Your task to perform on an android device: toggle pop-ups in chrome Image 0: 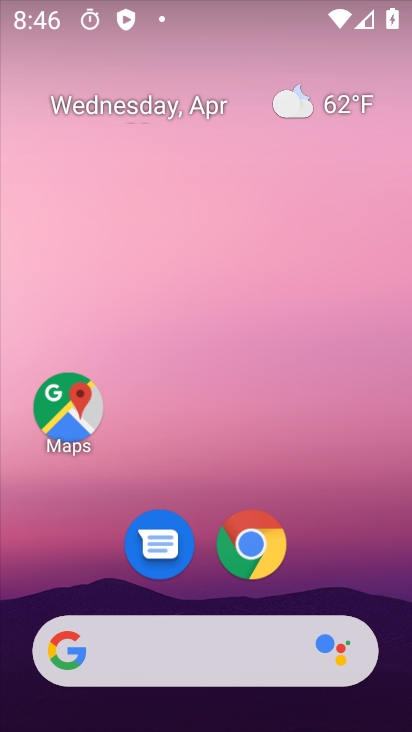
Step 0: click (253, 532)
Your task to perform on an android device: toggle pop-ups in chrome Image 1: 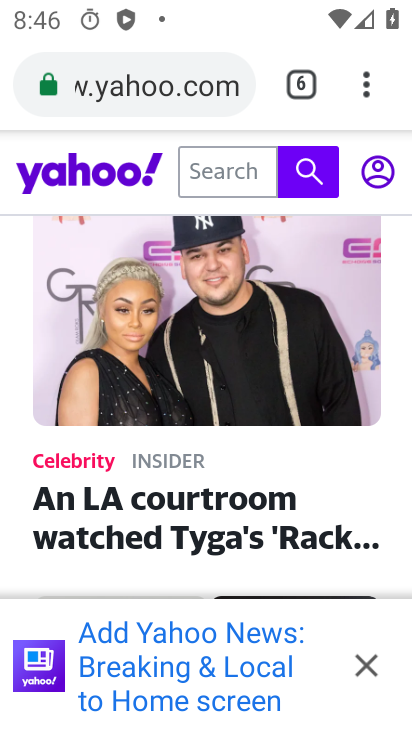
Step 1: drag from (363, 83) to (280, 580)
Your task to perform on an android device: toggle pop-ups in chrome Image 2: 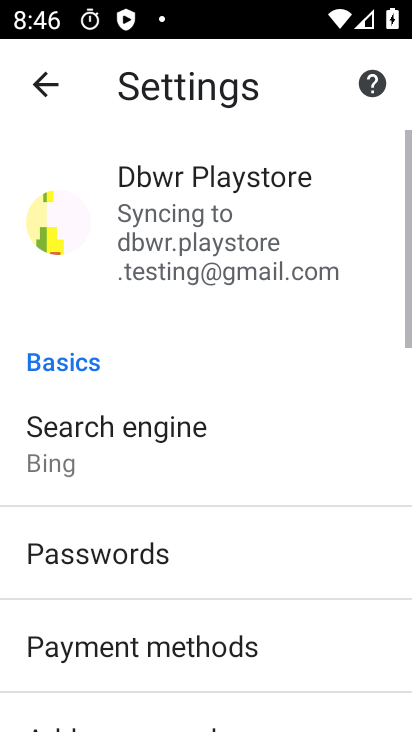
Step 2: drag from (304, 656) to (233, 199)
Your task to perform on an android device: toggle pop-ups in chrome Image 3: 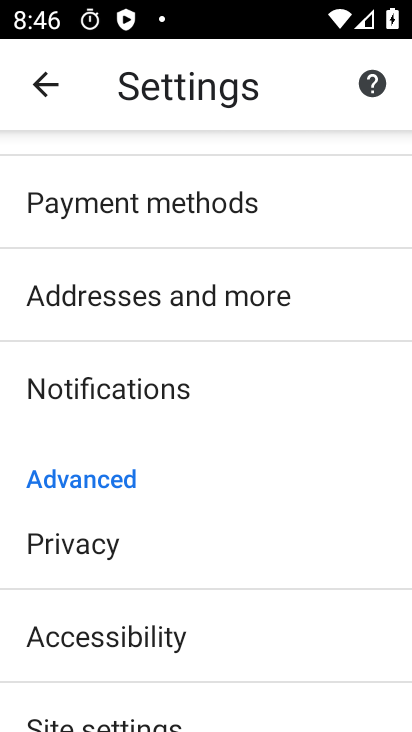
Step 3: click (147, 717)
Your task to perform on an android device: toggle pop-ups in chrome Image 4: 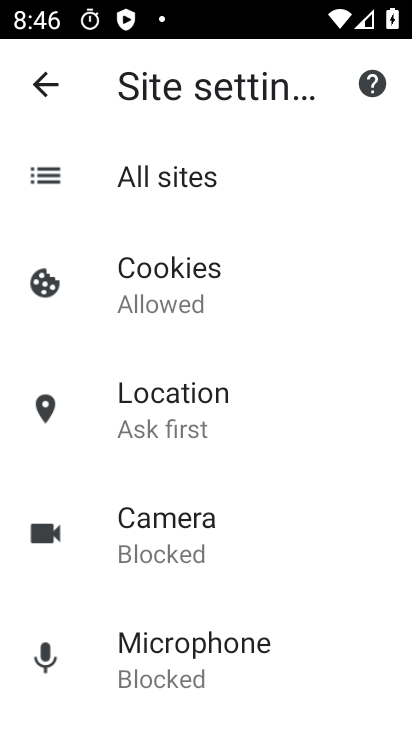
Step 4: drag from (368, 681) to (344, 208)
Your task to perform on an android device: toggle pop-ups in chrome Image 5: 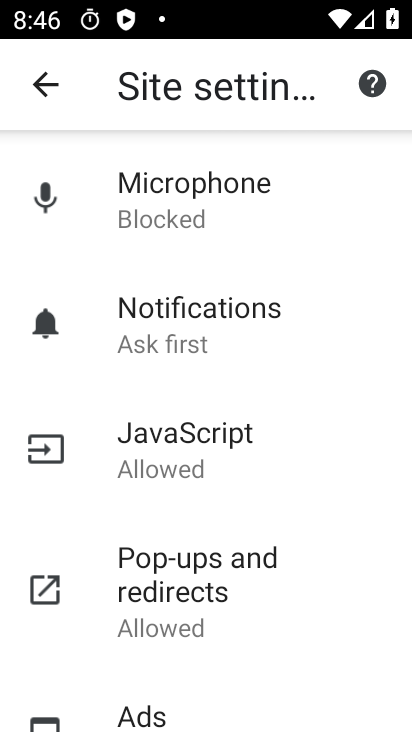
Step 5: click (184, 602)
Your task to perform on an android device: toggle pop-ups in chrome Image 6: 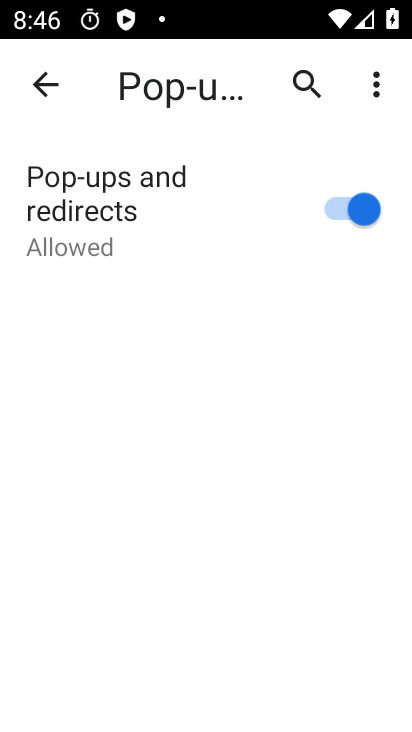
Step 6: click (365, 210)
Your task to perform on an android device: toggle pop-ups in chrome Image 7: 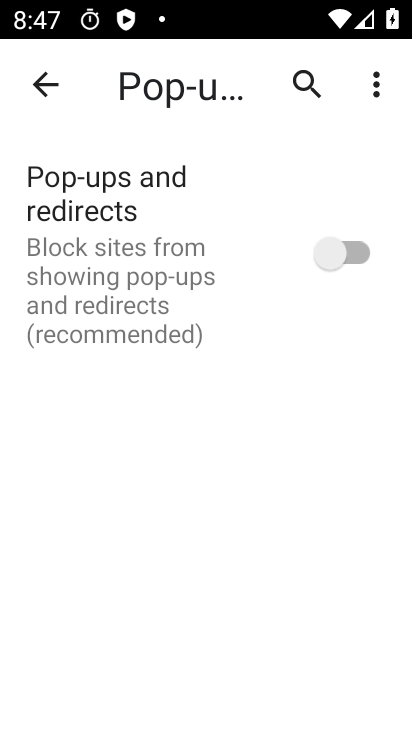
Step 7: task complete